Your task to perform on an android device: Open sound settings Image 0: 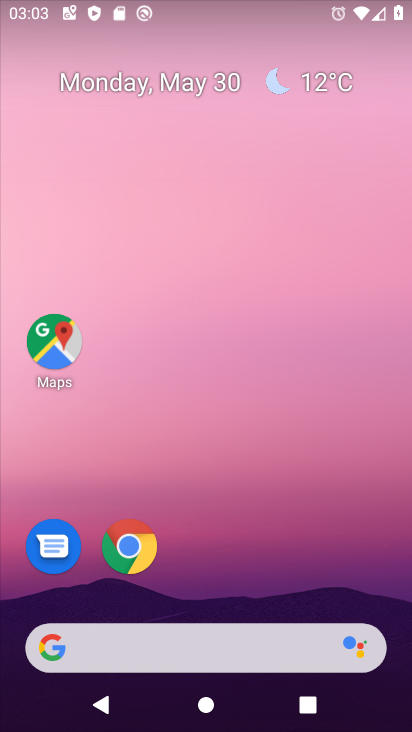
Step 0: drag from (199, 611) to (241, 69)
Your task to perform on an android device: Open sound settings Image 1: 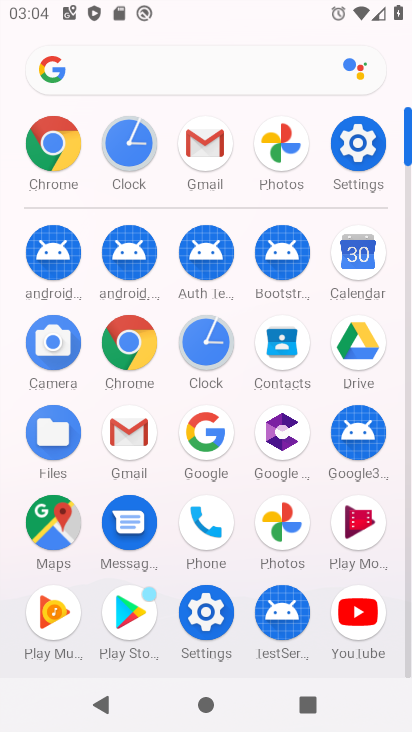
Step 1: click (196, 603)
Your task to perform on an android device: Open sound settings Image 2: 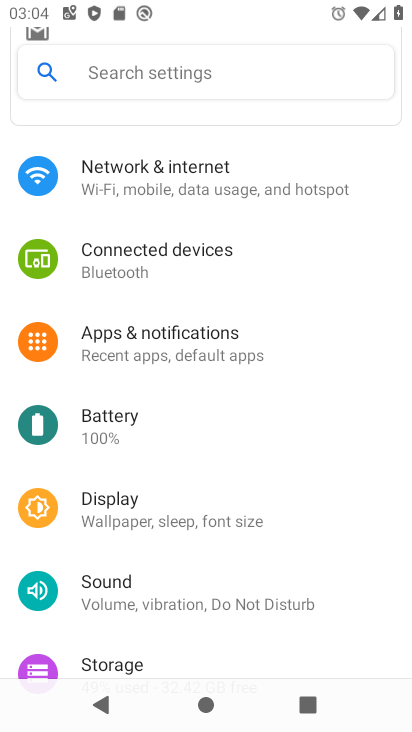
Step 2: click (145, 576)
Your task to perform on an android device: Open sound settings Image 3: 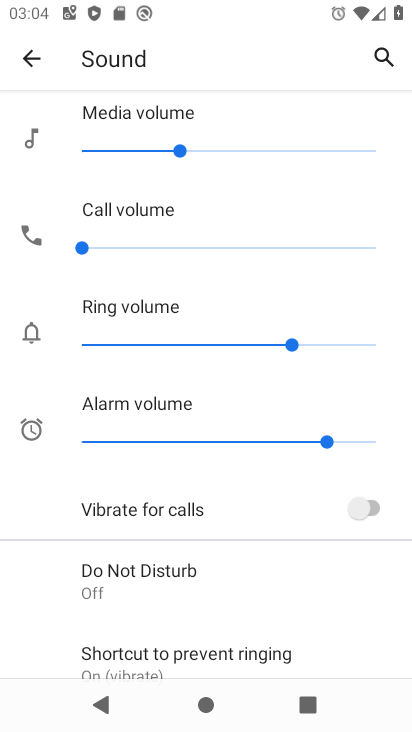
Step 3: drag from (239, 641) to (225, 111)
Your task to perform on an android device: Open sound settings Image 4: 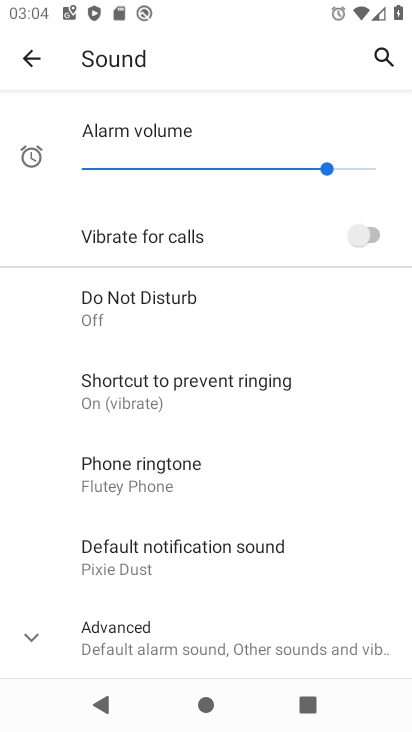
Step 4: click (24, 632)
Your task to perform on an android device: Open sound settings Image 5: 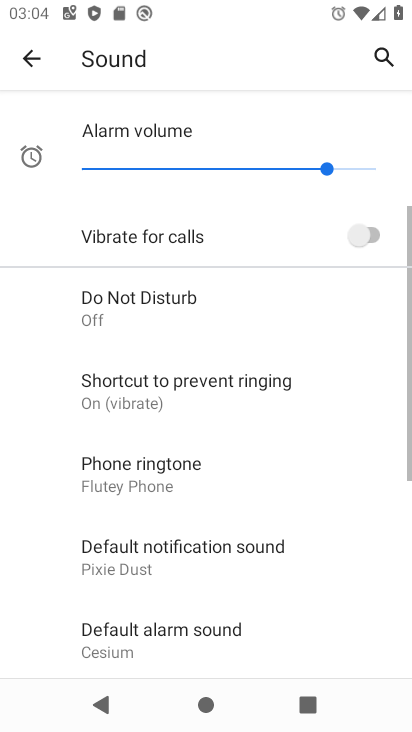
Step 5: task complete